Your task to perform on an android device: install app "Paramount+ | Peak Streaming" Image 0: 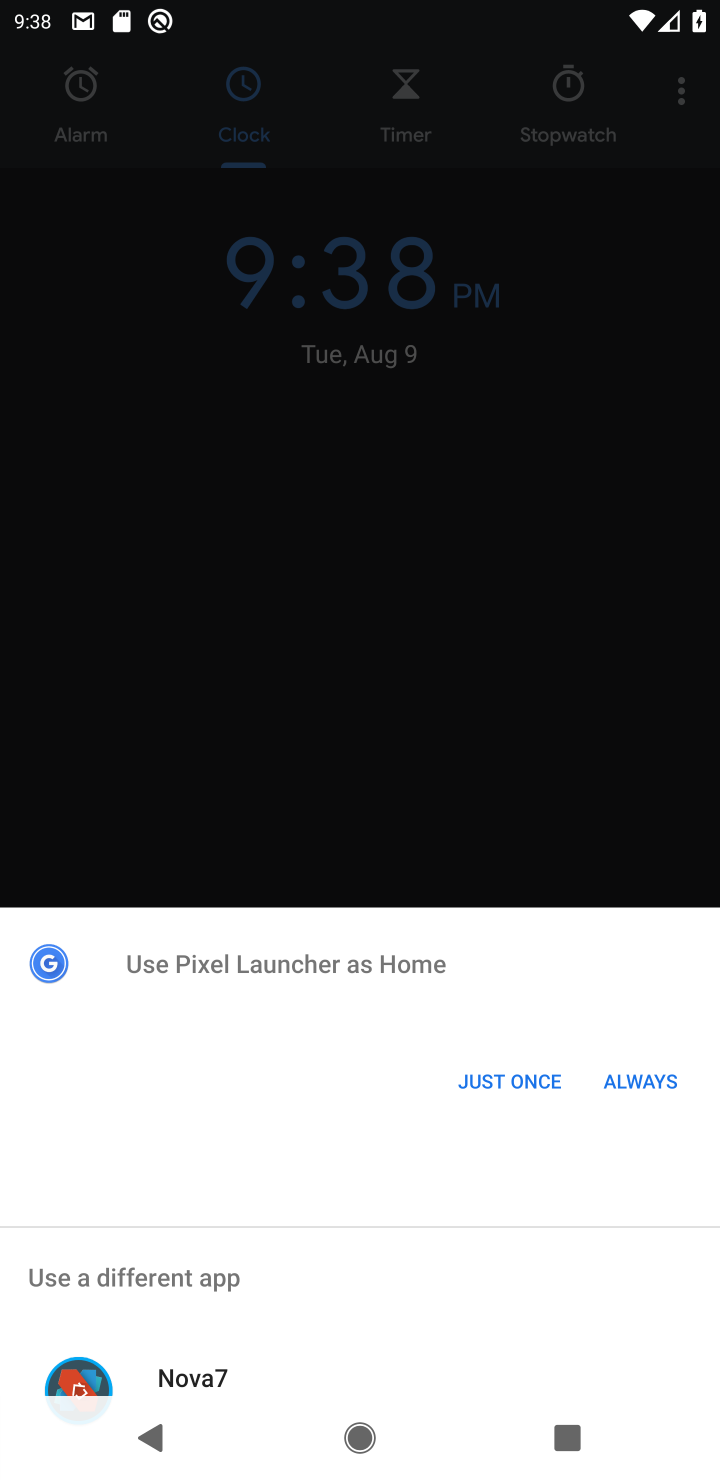
Step 0: press home button
Your task to perform on an android device: install app "Paramount+ | Peak Streaming" Image 1: 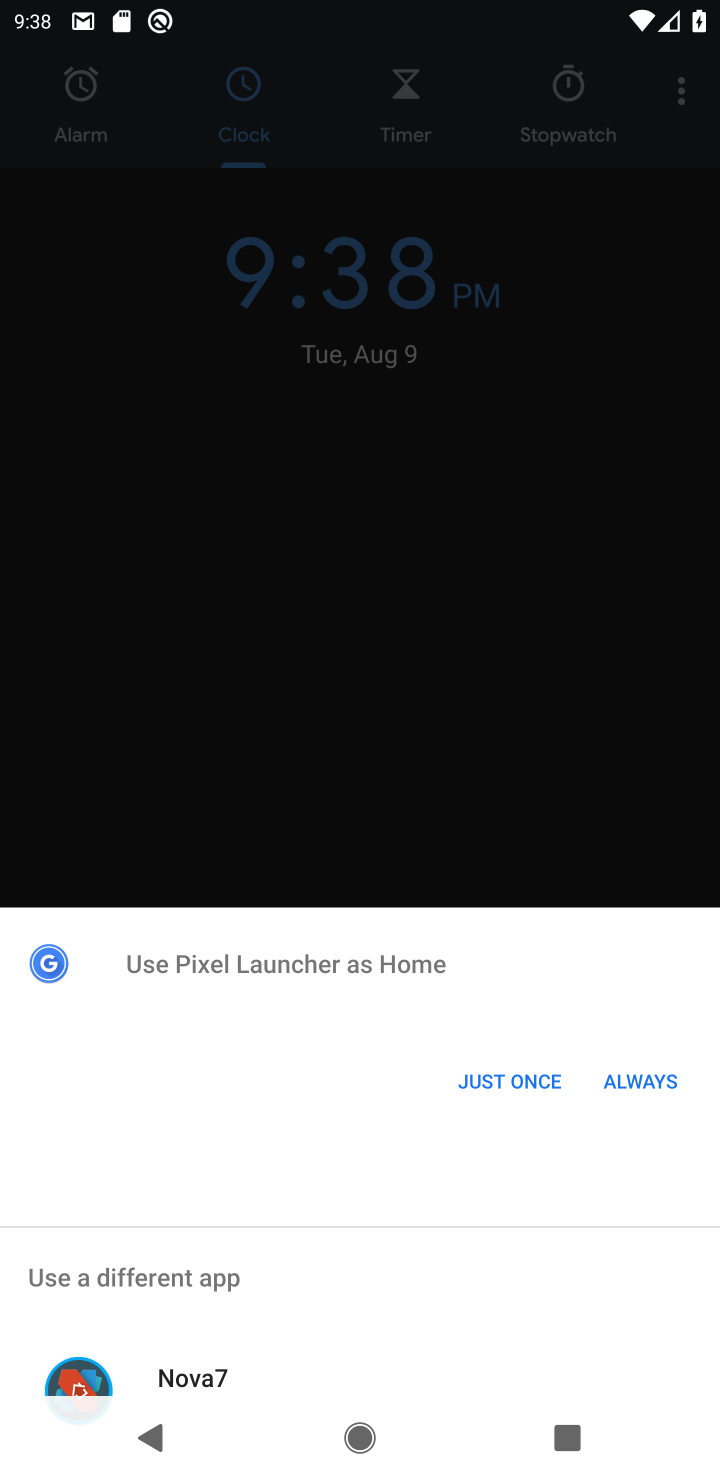
Step 1: press back button
Your task to perform on an android device: install app "Paramount+ | Peak Streaming" Image 2: 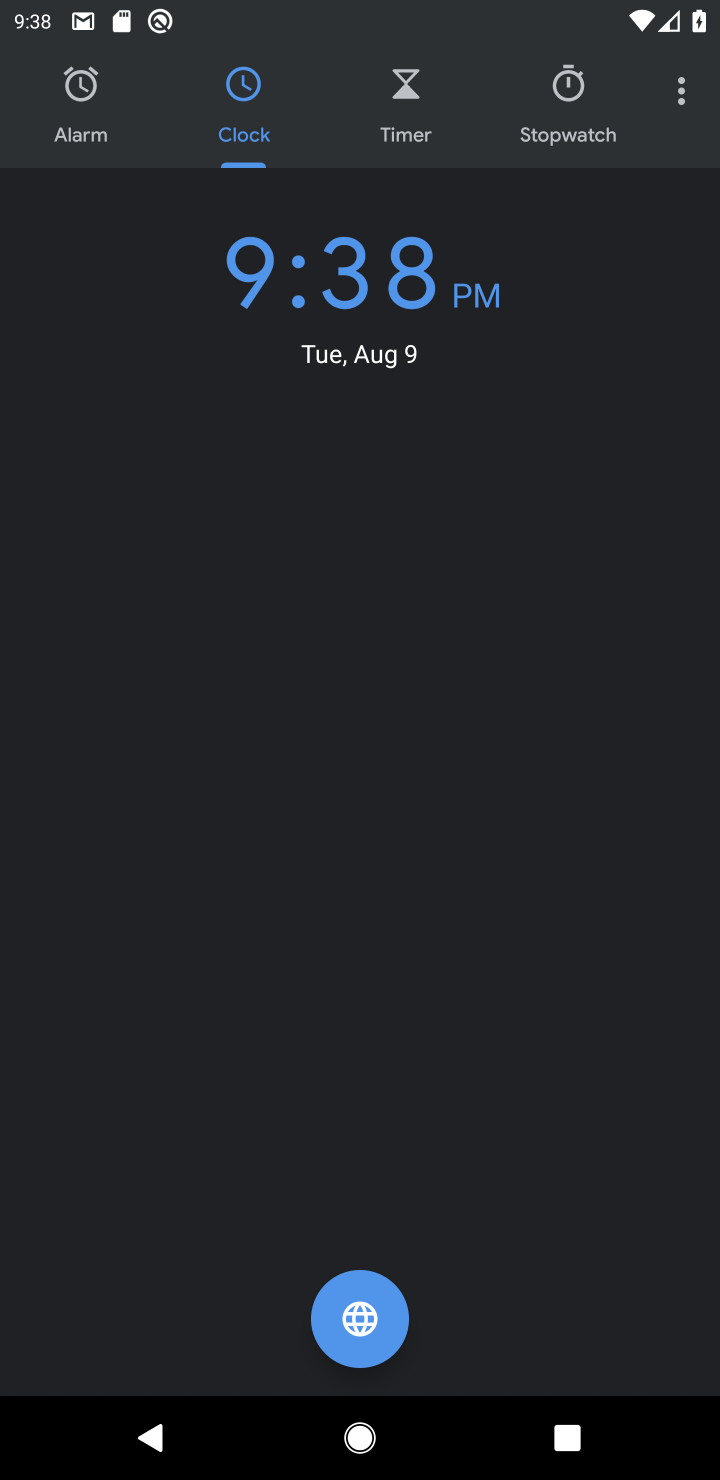
Step 2: press back button
Your task to perform on an android device: install app "Paramount+ | Peak Streaming" Image 3: 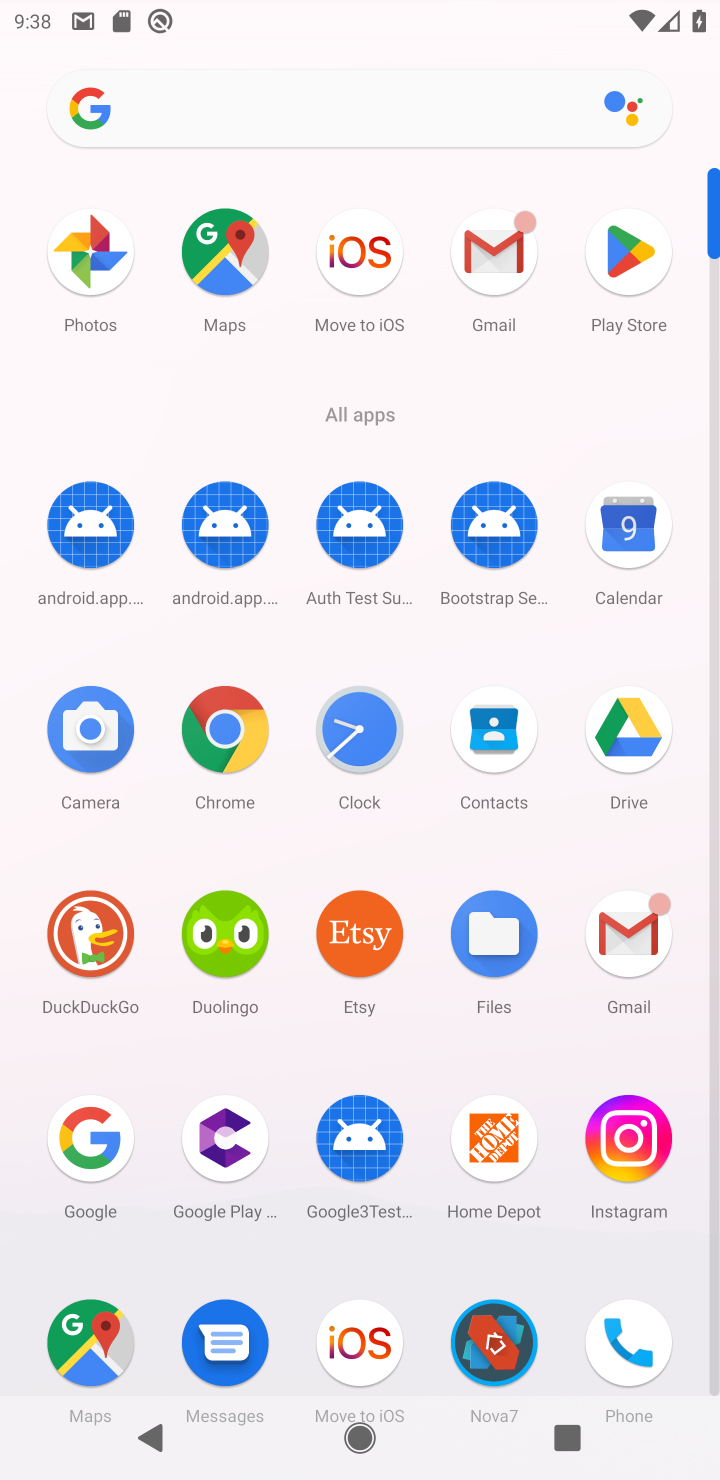
Step 3: click (630, 248)
Your task to perform on an android device: install app "Paramount+ | Peak Streaming" Image 4: 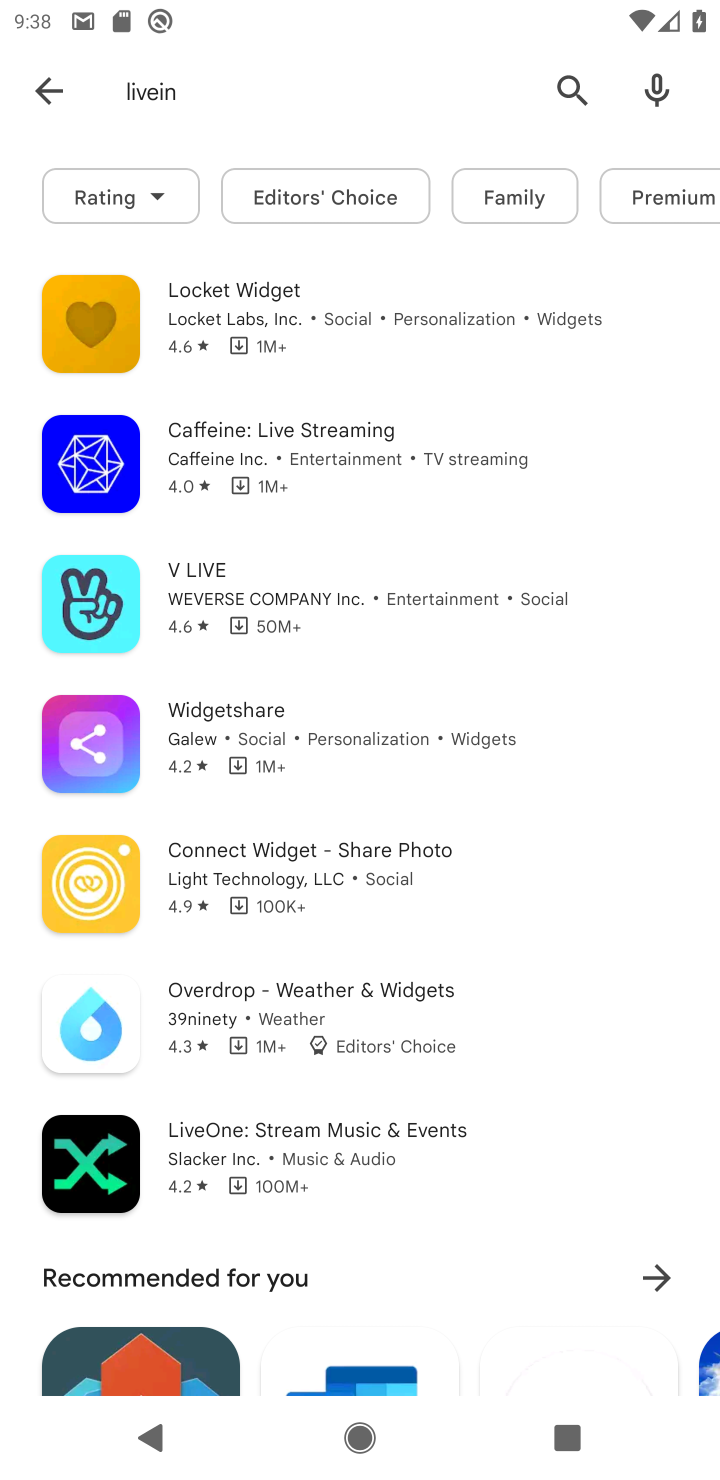
Step 4: click (566, 83)
Your task to perform on an android device: install app "Paramount+ | Peak Streaming" Image 5: 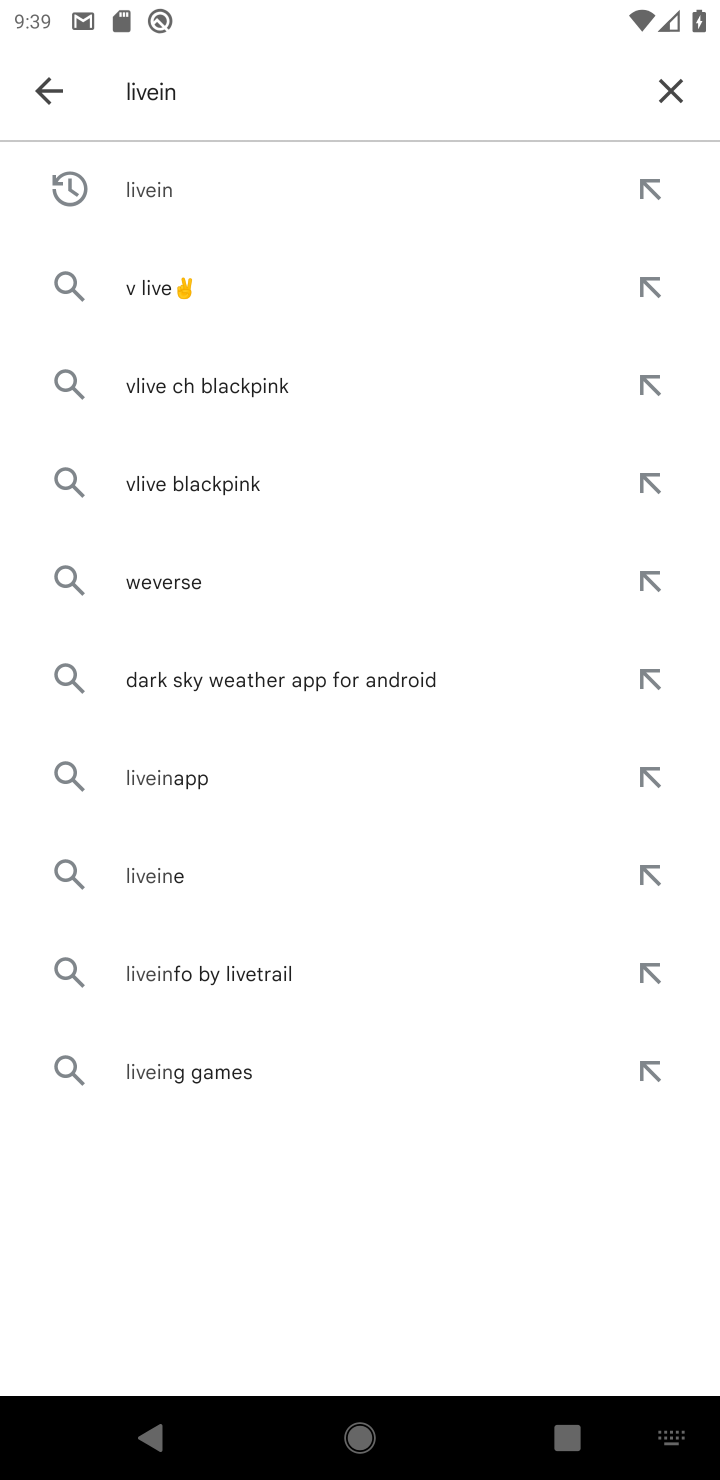
Step 5: click (665, 89)
Your task to perform on an android device: install app "Paramount+ | Peak Streaming" Image 6: 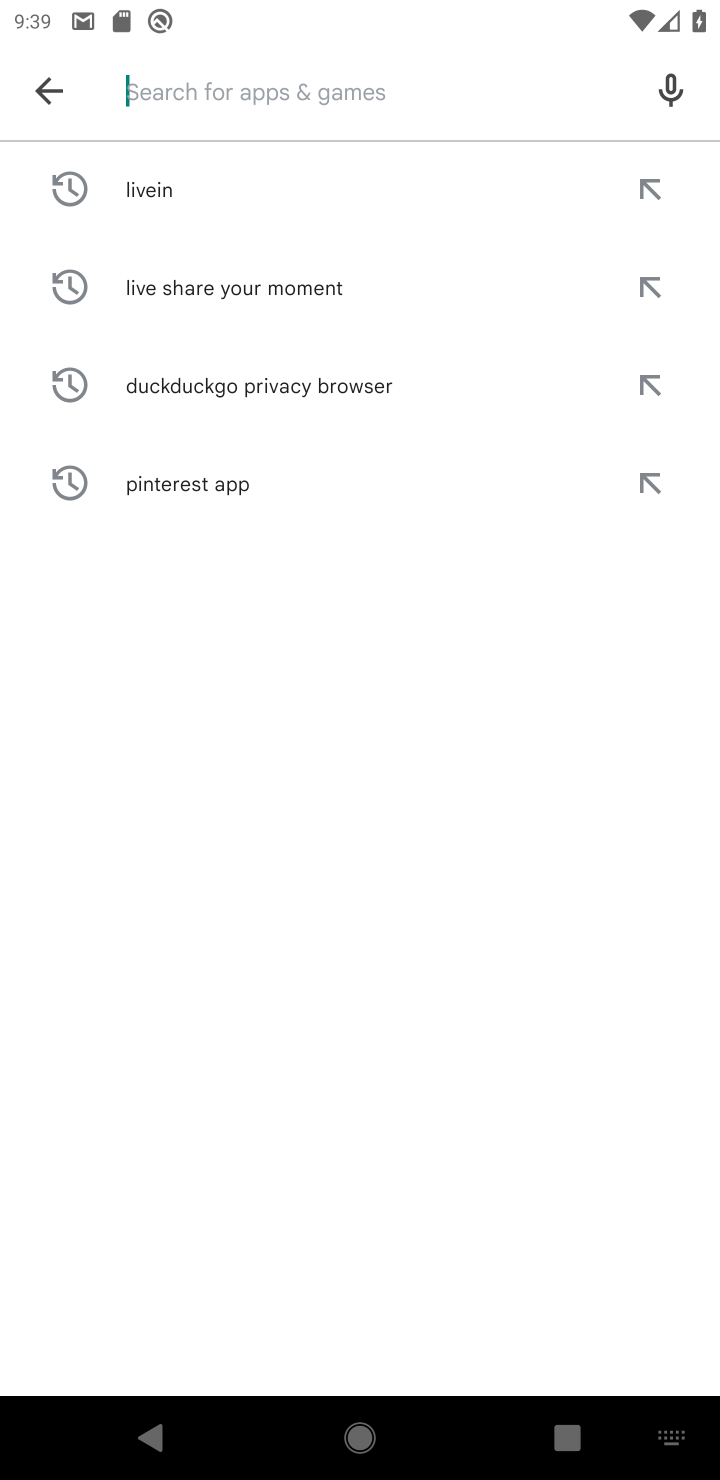
Step 6: type "paramount peak streaming "
Your task to perform on an android device: install app "Paramount+ | Peak Streaming" Image 7: 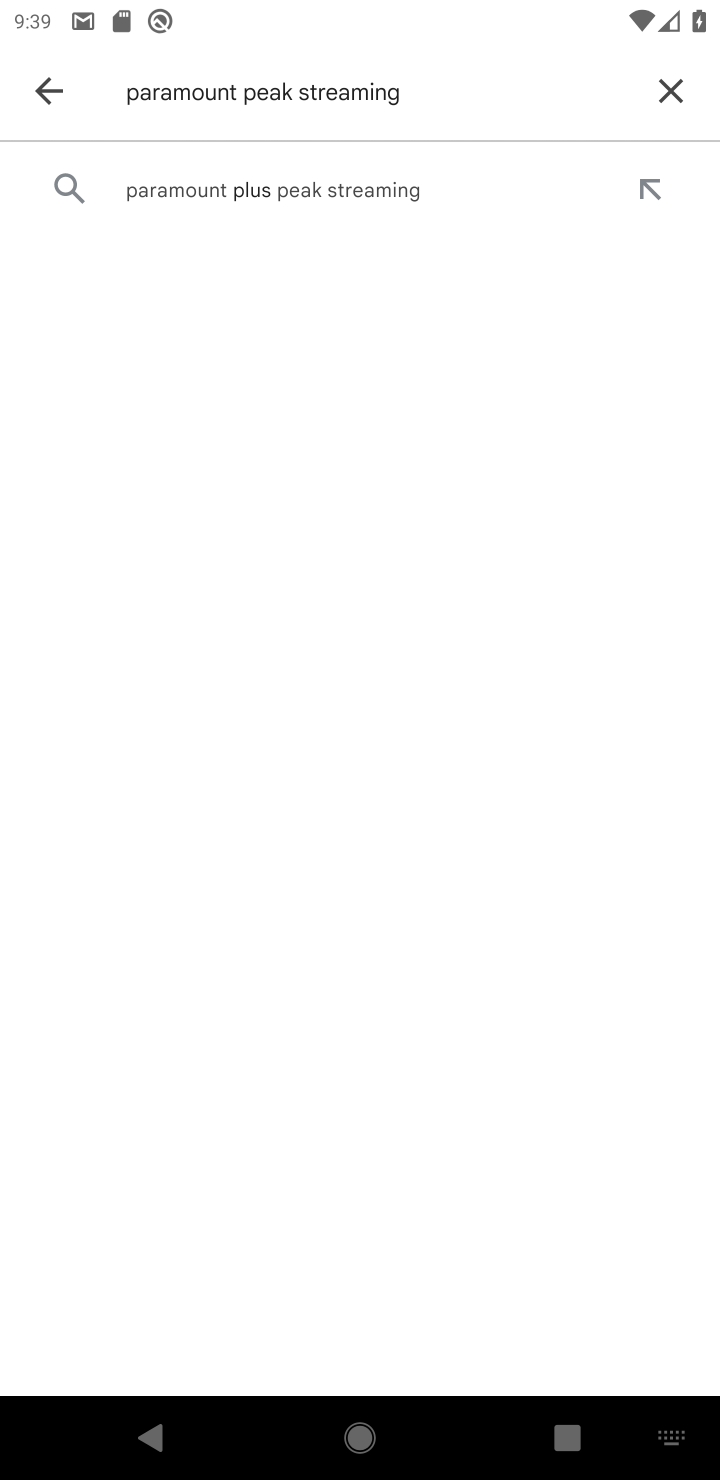
Step 7: click (332, 177)
Your task to perform on an android device: install app "Paramount+ | Peak Streaming" Image 8: 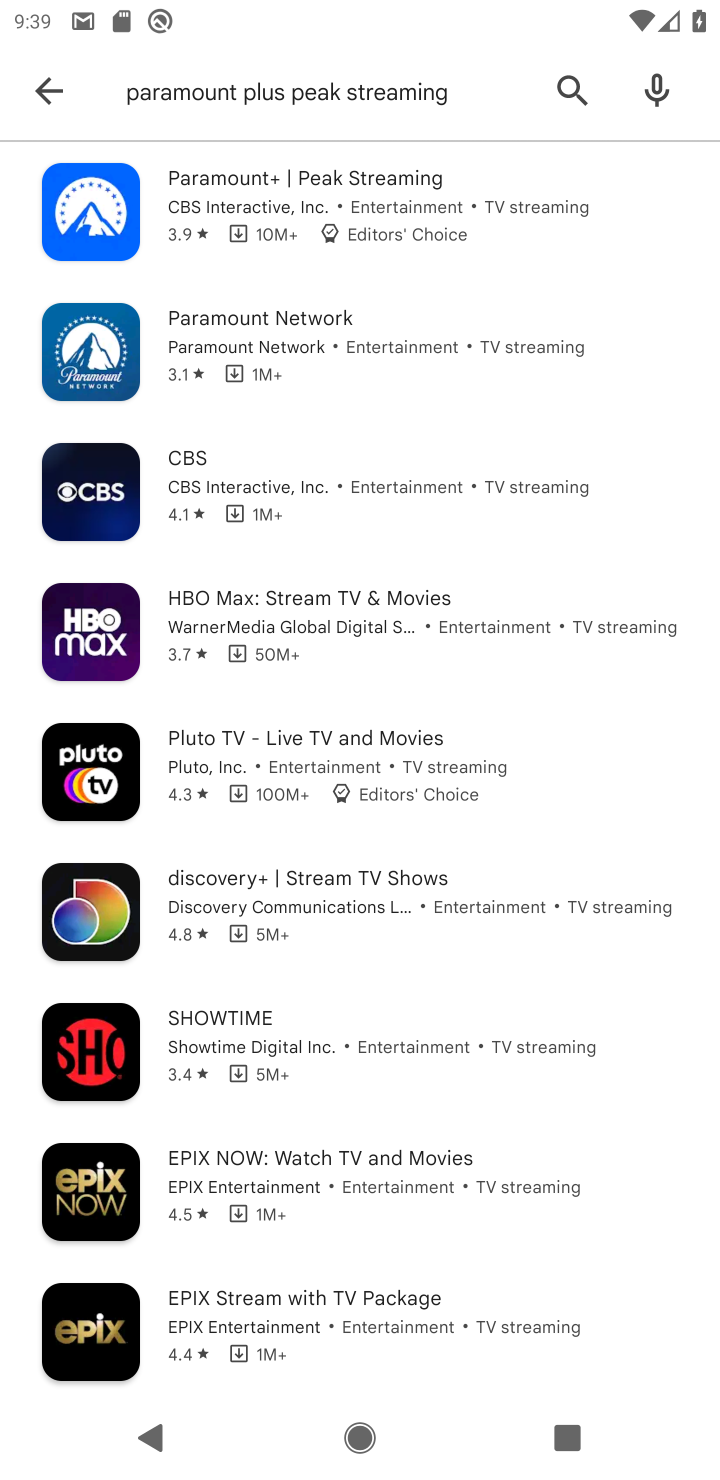
Step 8: click (281, 86)
Your task to perform on an android device: install app "Paramount+ | Peak Streaming" Image 9: 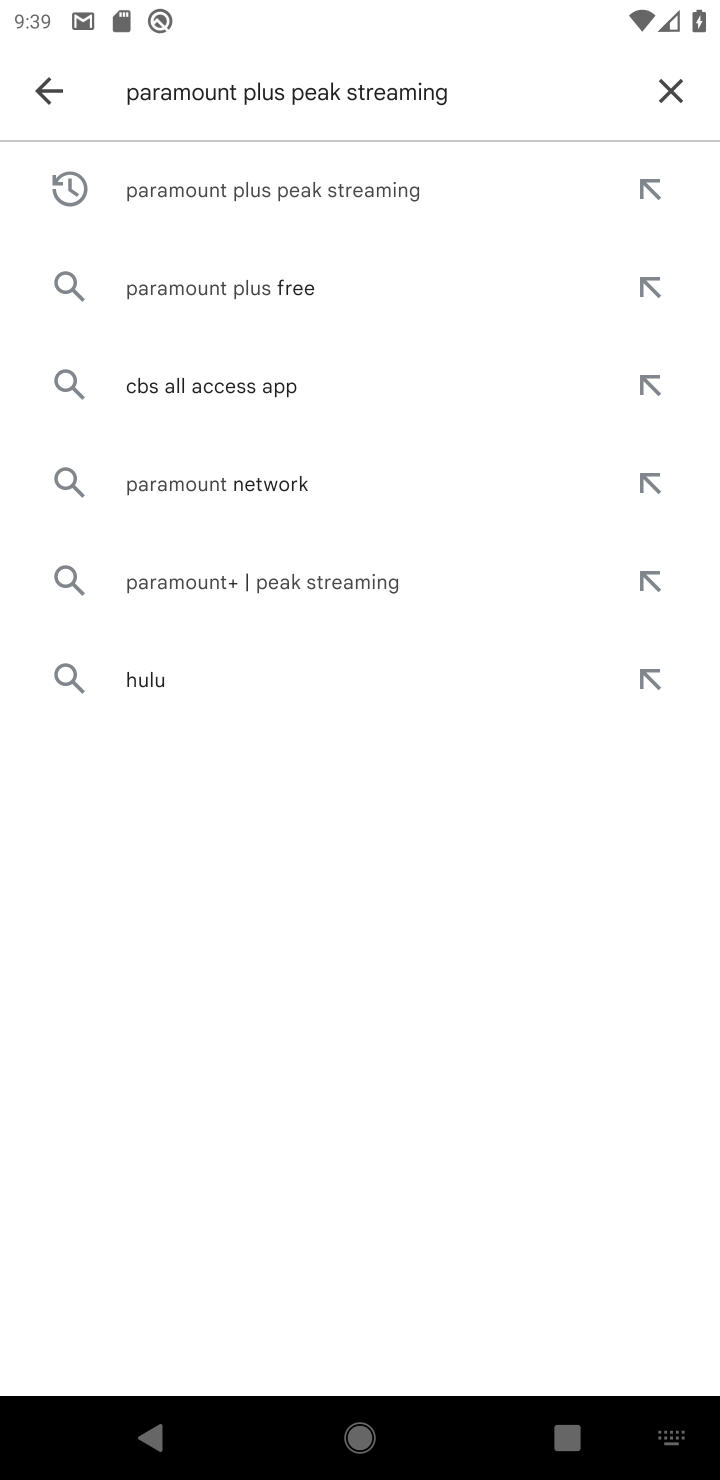
Step 9: click (289, 81)
Your task to perform on an android device: install app "Paramount+ | Peak Streaming" Image 10: 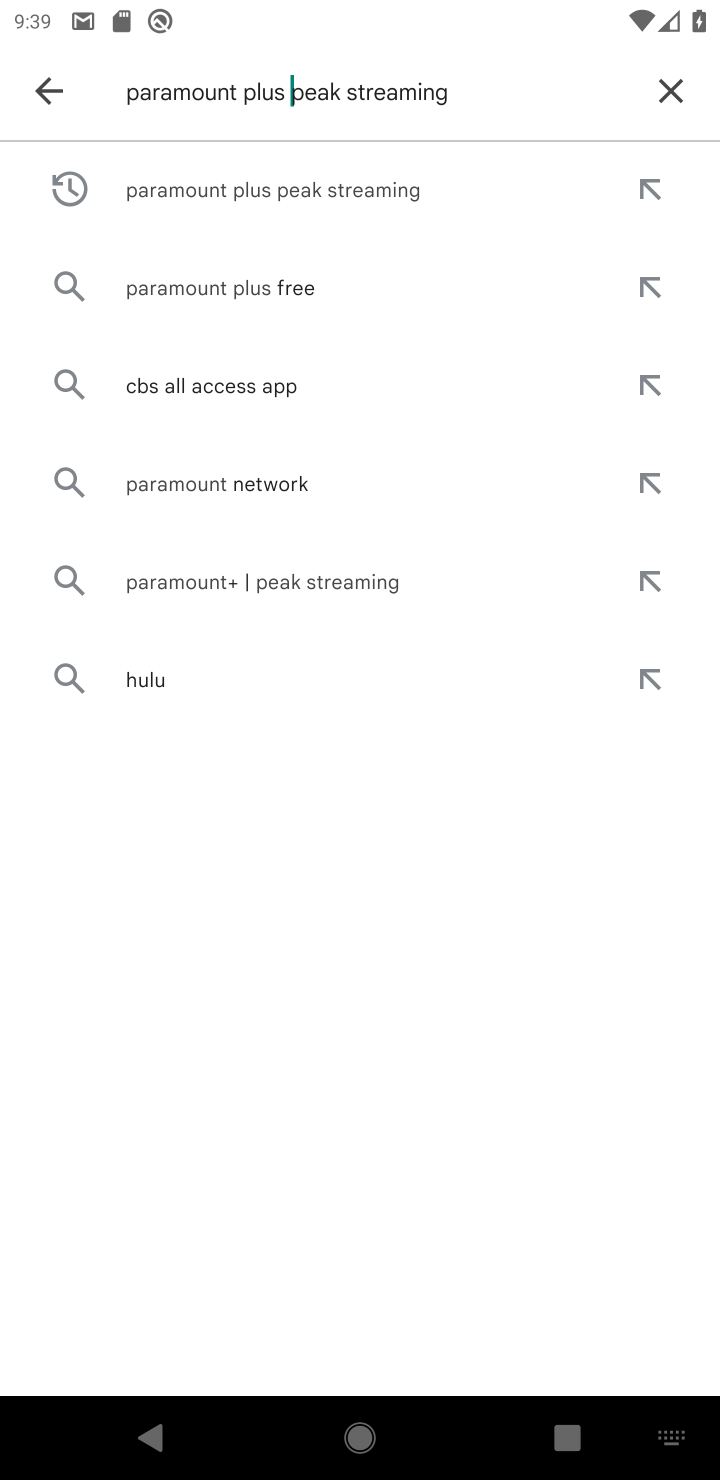
Step 10: click (298, 567)
Your task to perform on an android device: install app "Paramount+ | Peak Streaming" Image 11: 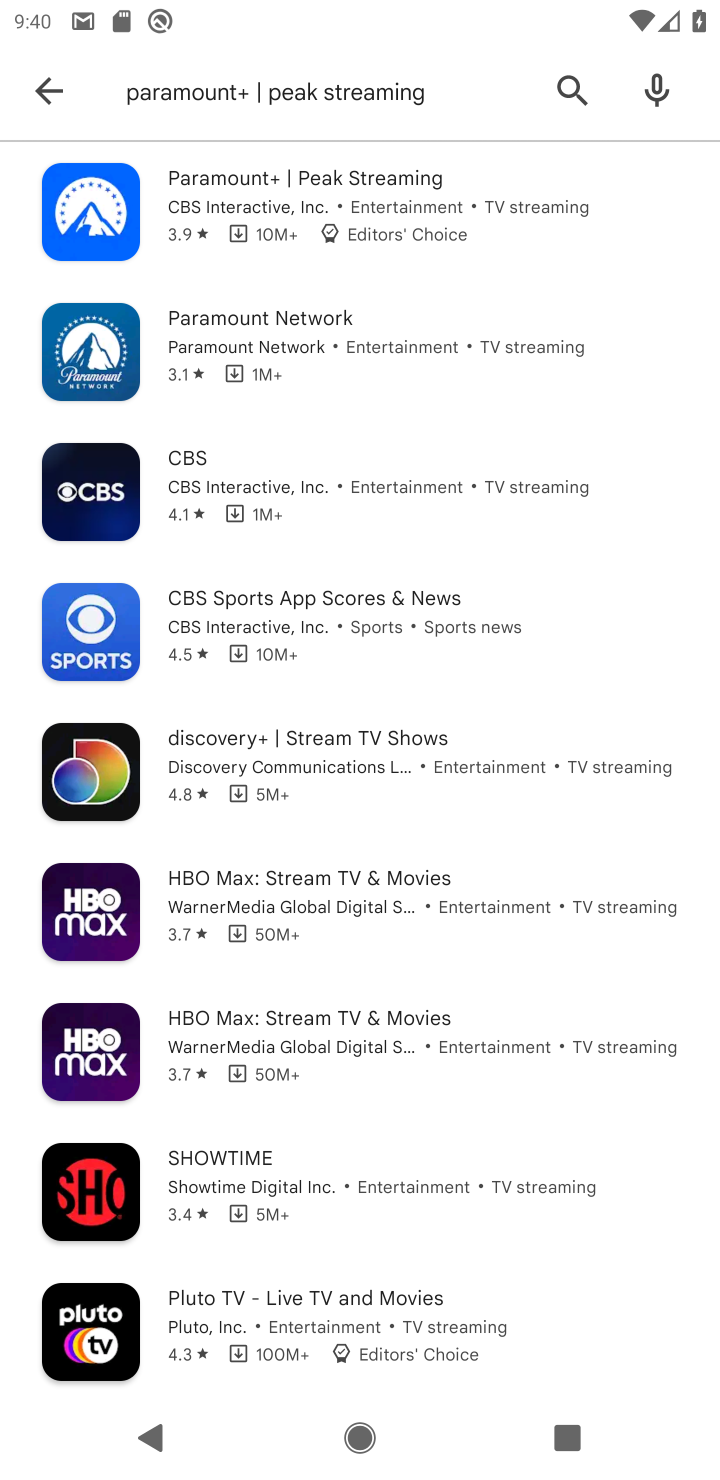
Step 11: task complete